Your task to perform on an android device: Go to Reddit.com Image 0: 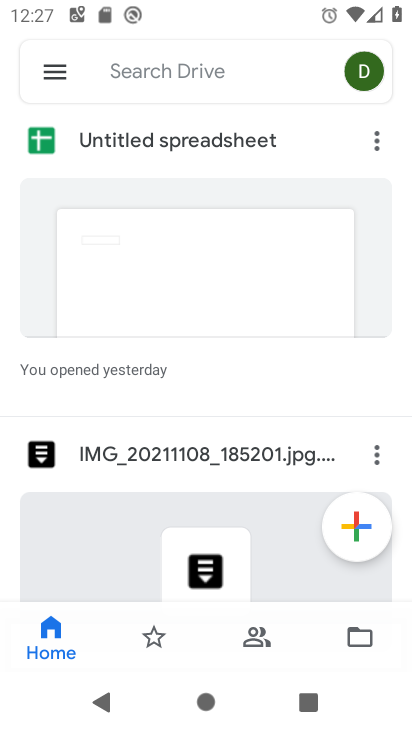
Step 0: press home button
Your task to perform on an android device: Go to Reddit.com Image 1: 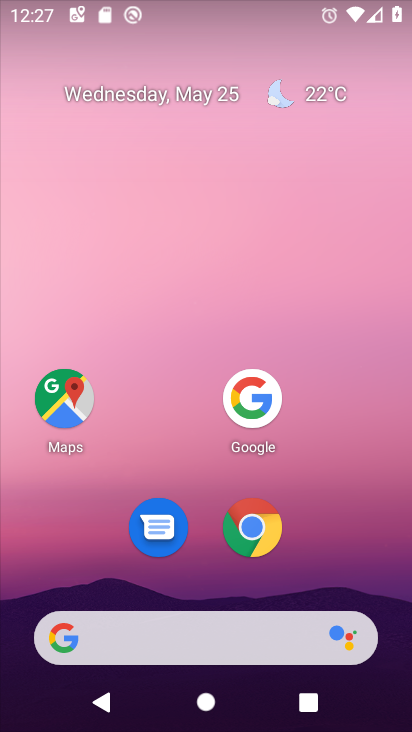
Step 1: click (241, 548)
Your task to perform on an android device: Go to Reddit.com Image 2: 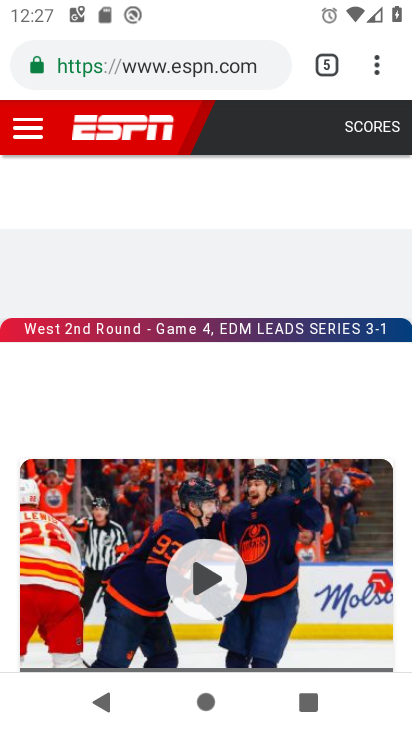
Step 2: drag from (379, 72) to (254, 120)
Your task to perform on an android device: Go to Reddit.com Image 3: 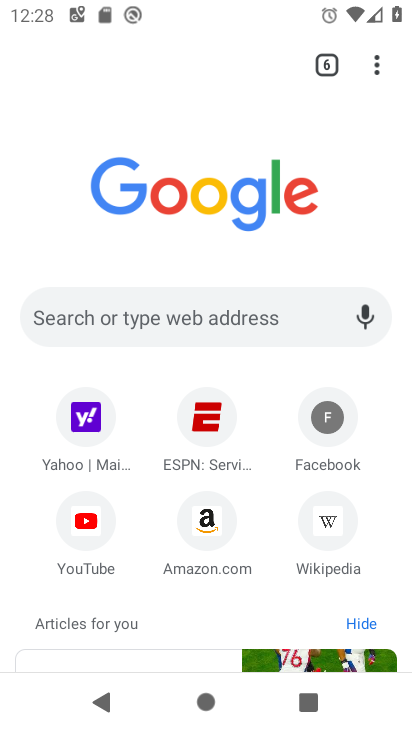
Step 3: click (114, 316)
Your task to perform on an android device: Go to Reddit.com Image 4: 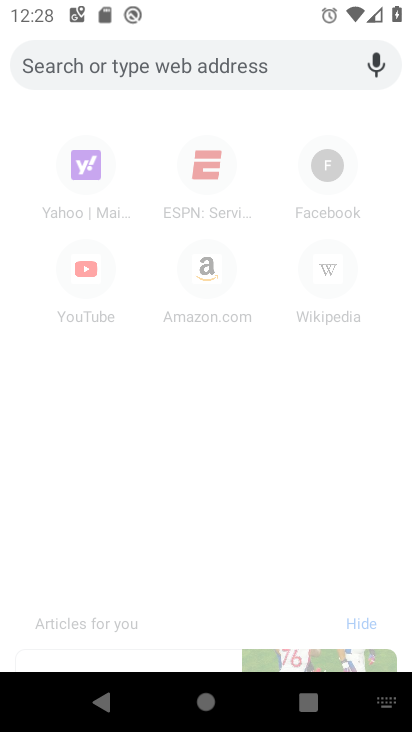
Step 4: type "reddit.com"
Your task to perform on an android device: Go to Reddit.com Image 5: 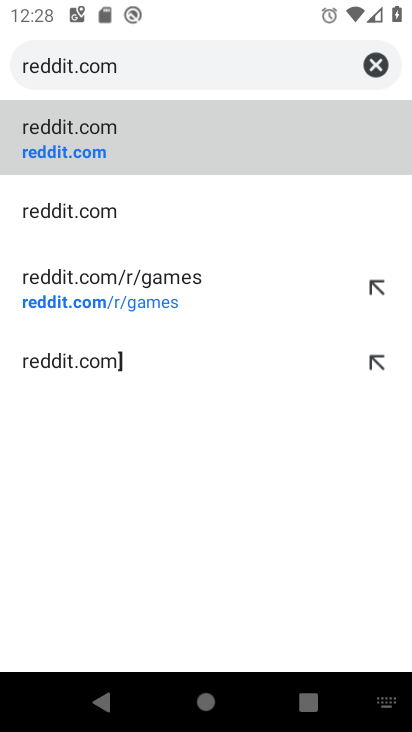
Step 5: click (128, 127)
Your task to perform on an android device: Go to Reddit.com Image 6: 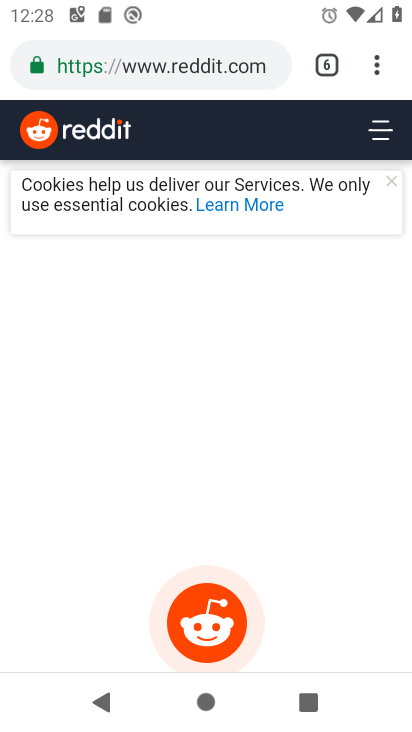
Step 6: task complete